Your task to perform on an android device: check the backup settings in the google photos Image 0: 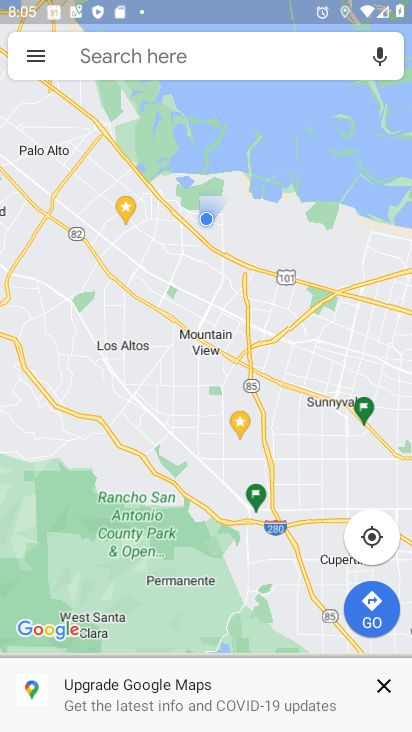
Step 0: press home button
Your task to perform on an android device: check the backup settings in the google photos Image 1: 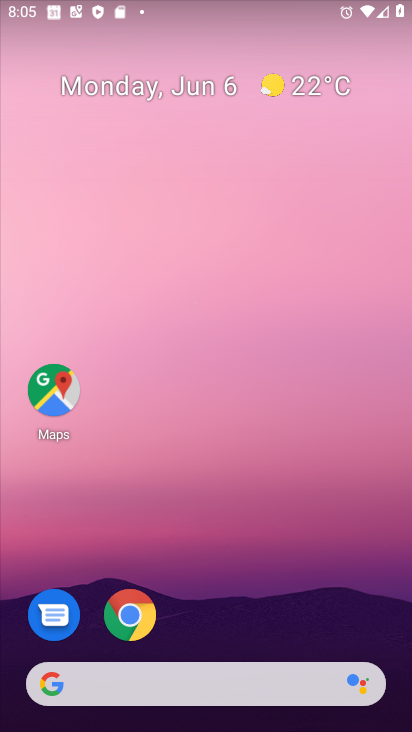
Step 1: drag from (373, 461) to (345, 161)
Your task to perform on an android device: check the backup settings in the google photos Image 2: 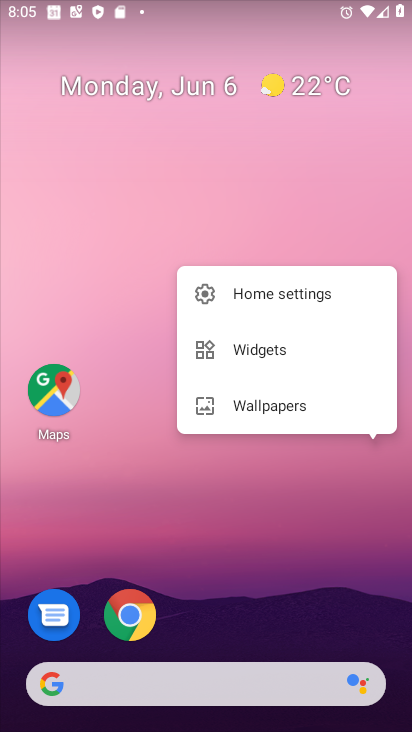
Step 2: click (135, 464)
Your task to perform on an android device: check the backup settings in the google photos Image 3: 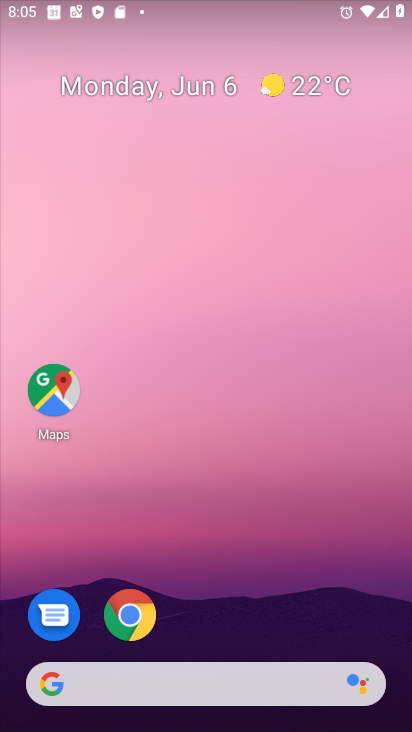
Step 3: drag from (392, 671) to (383, 71)
Your task to perform on an android device: check the backup settings in the google photos Image 4: 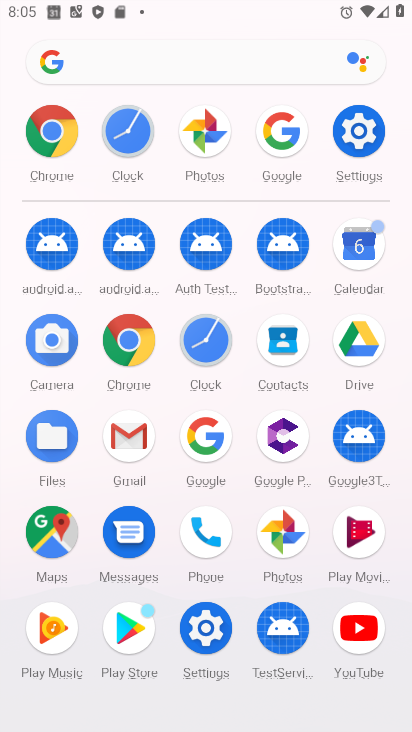
Step 4: click (278, 522)
Your task to perform on an android device: check the backup settings in the google photos Image 5: 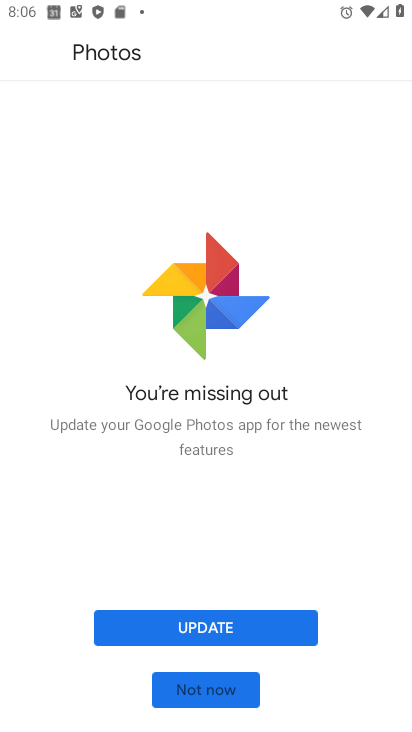
Step 5: click (260, 608)
Your task to perform on an android device: check the backup settings in the google photos Image 6: 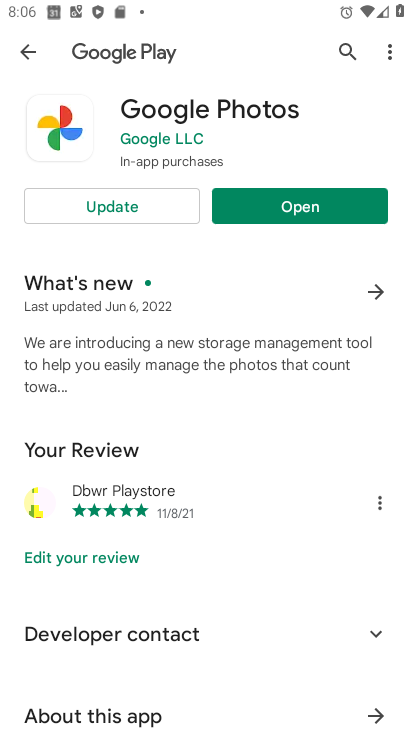
Step 6: click (169, 211)
Your task to perform on an android device: check the backup settings in the google photos Image 7: 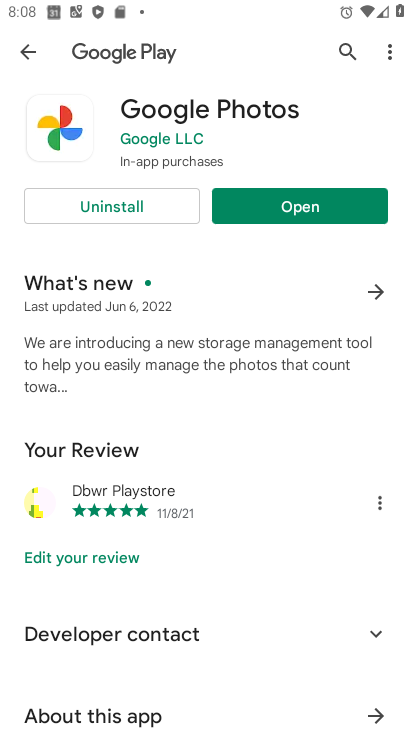
Step 7: click (315, 203)
Your task to perform on an android device: check the backup settings in the google photos Image 8: 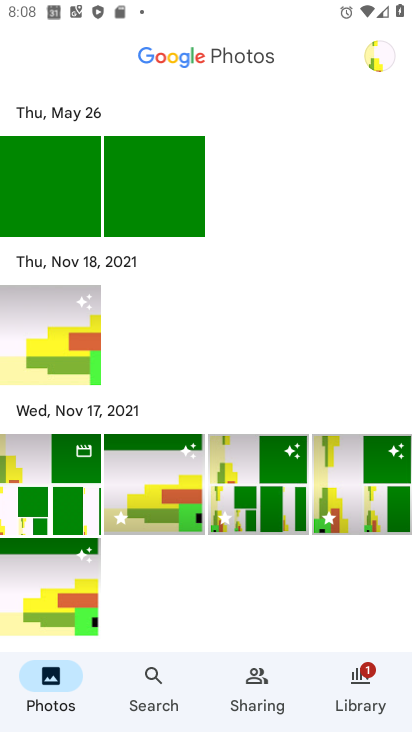
Step 8: task complete